Your task to perform on an android device: Set the phone to "Do not disturb". Image 0: 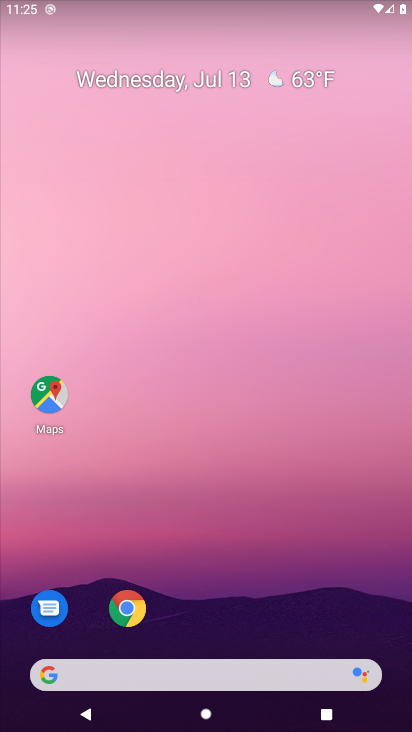
Step 0: press home button
Your task to perform on an android device: Set the phone to "Do not disturb". Image 1: 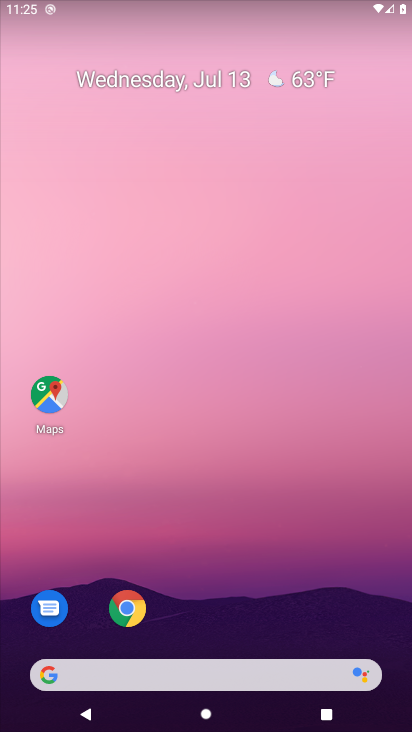
Step 1: drag from (227, 0) to (182, 352)
Your task to perform on an android device: Set the phone to "Do not disturb". Image 2: 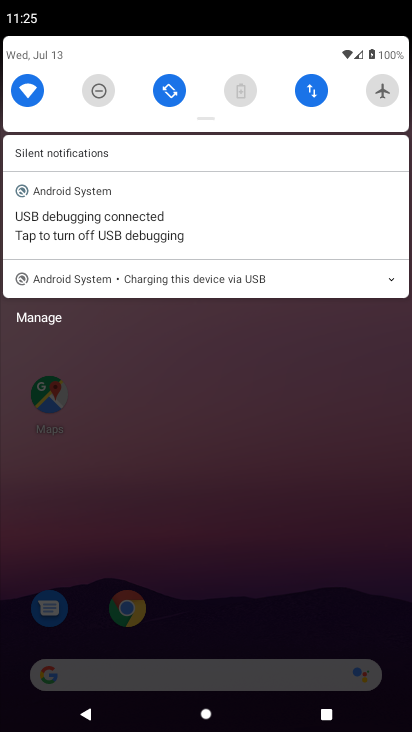
Step 2: click (98, 96)
Your task to perform on an android device: Set the phone to "Do not disturb". Image 3: 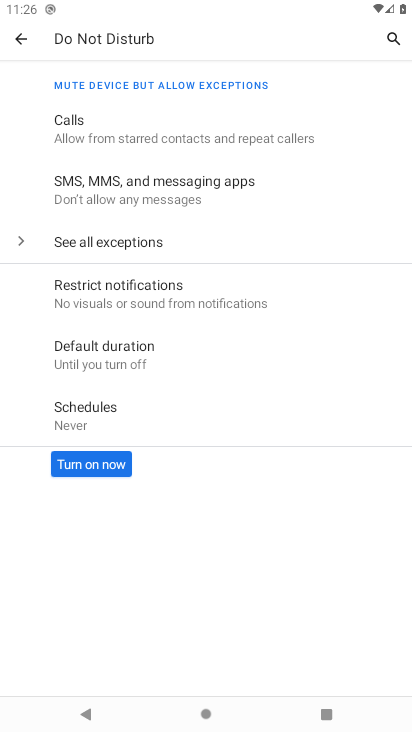
Step 3: click (95, 471)
Your task to perform on an android device: Set the phone to "Do not disturb". Image 4: 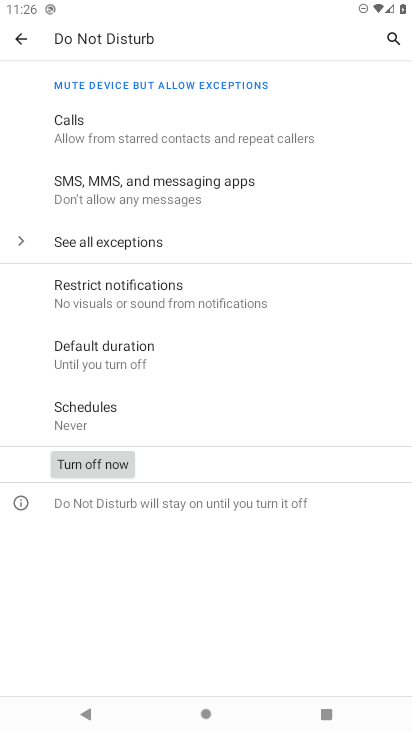
Step 4: task complete